Your task to perform on an android device: turn on wifi Image 0: 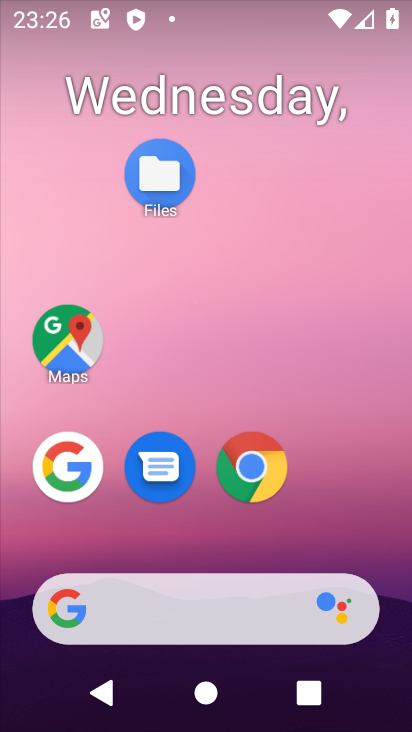
Step 0: drag from (221, 568) to (203, 10)
Your task to perform on an android device: turn on wifi Image 1: 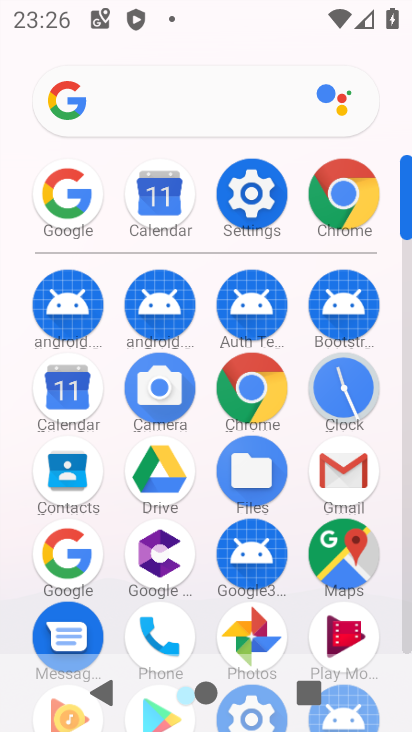
Step 1: click (257, 171)
Your task to perform on an android device: turn on wifi Image 2: 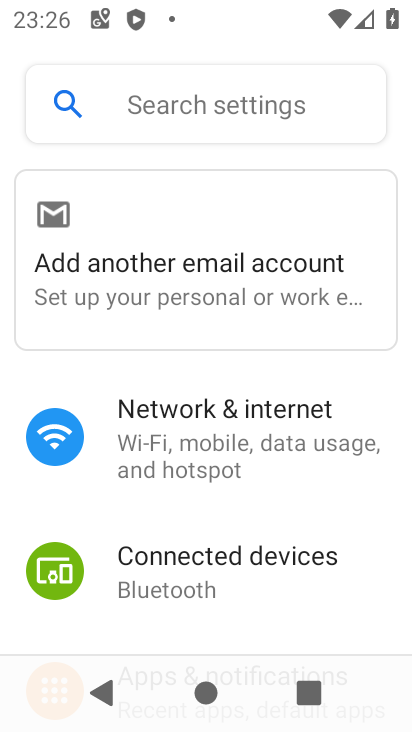
Step 2: click (156, 481)
Your task to perform on an android device: turn on wifi Image 3: 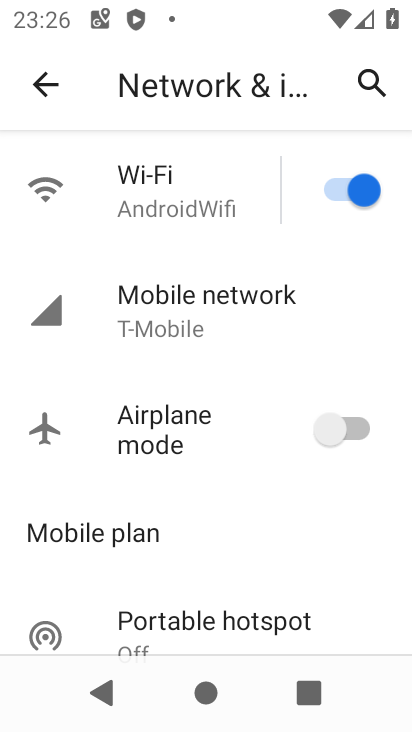
Step 3: click (223, 200)
Your task to perform on an android device: turn on wifi Image 4: 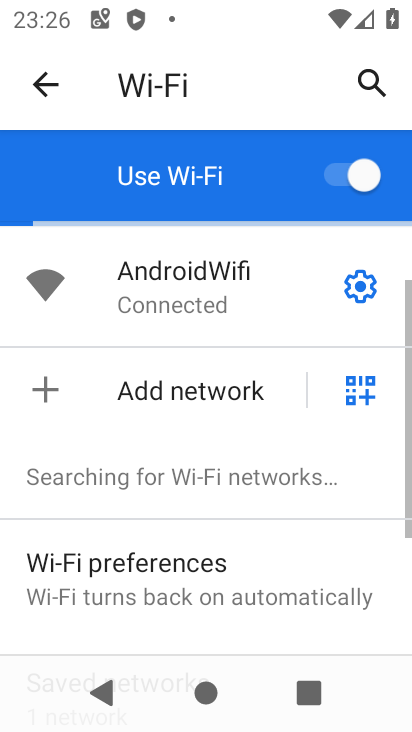
Step 4: task complete